Your task to perform on an android device: Open internet settings Image 0: 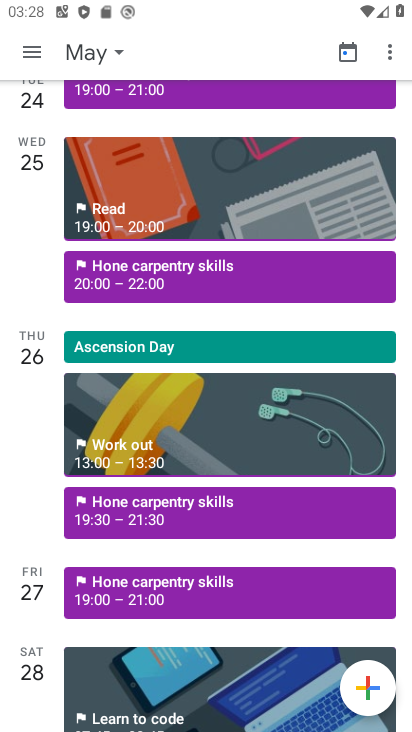
Step 0: press home button
Your task to perform on an android device: Open internet settings Image 1: 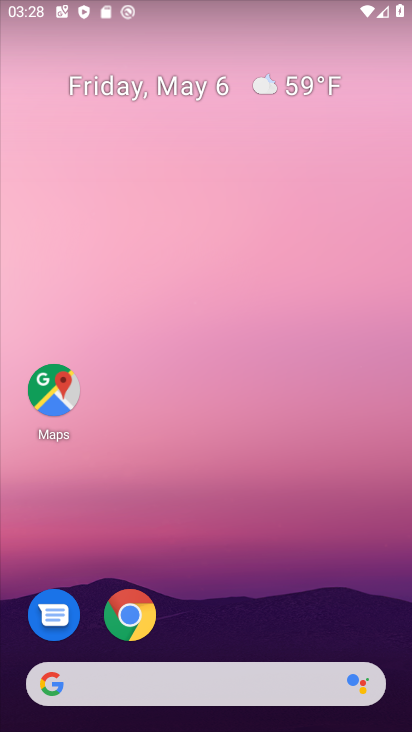
Step 1: drag from (372, 652) to (251, 14)
Your task to perform on an android device: Open internet settings Image 2: 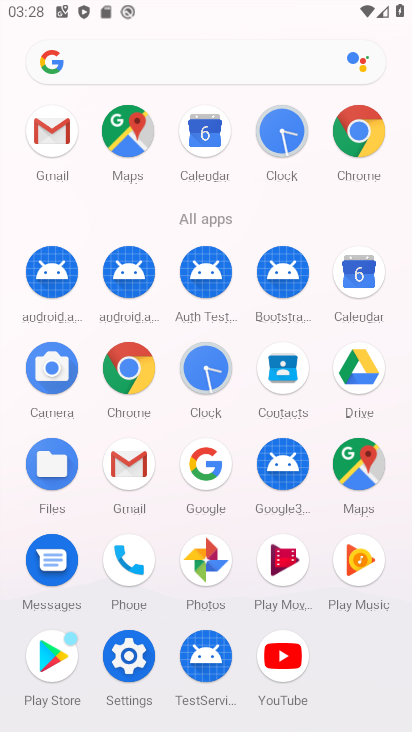
Step 2: click (126, 657)
Your task to perform on an android device: Open internet settings Image 3: 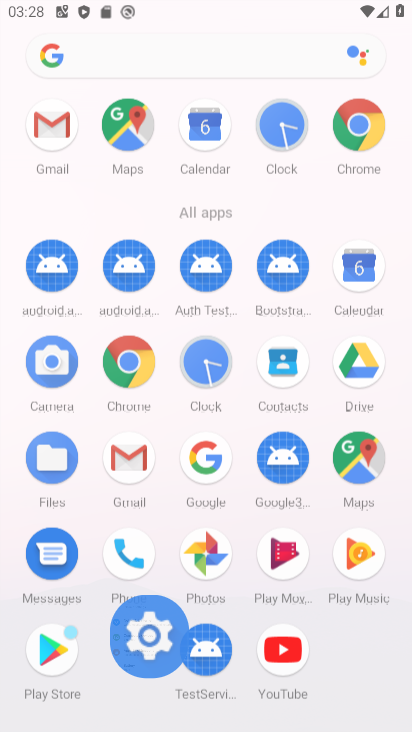
Step 3: click (131, 655)
Your task to perform on an android device: Open internet settings Image 4: 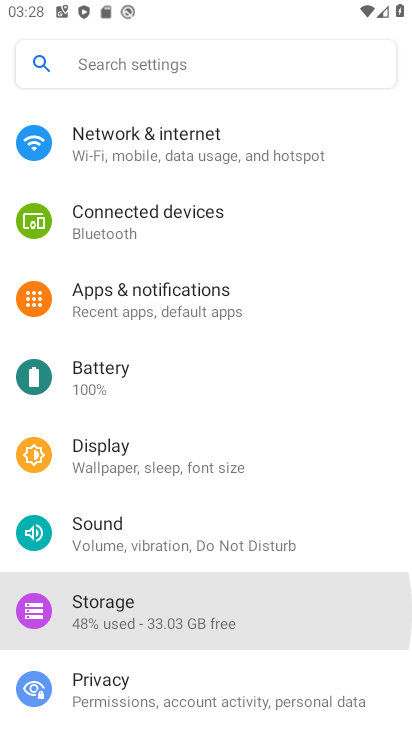
Step 4: click (139, 647)
Your task to perform on an android device: Open internet settings Image 5: 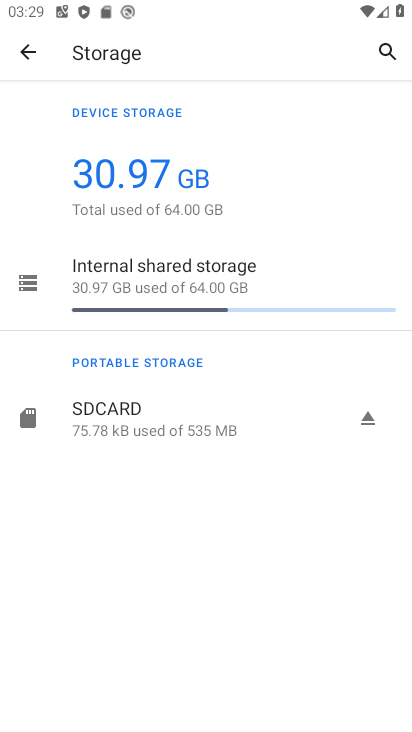
Step 5: click (20, 42)
Your task to perform on an android device: Open internet settings Image 6: 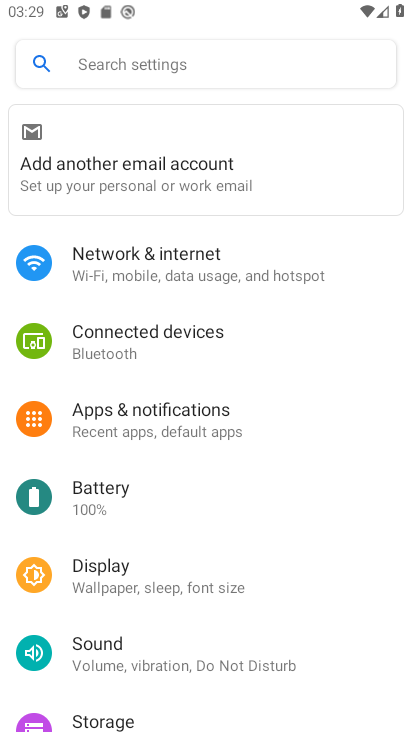
Step 6: click (143, 267)
Your task to perform on an android device: Open internet settings Image 7: 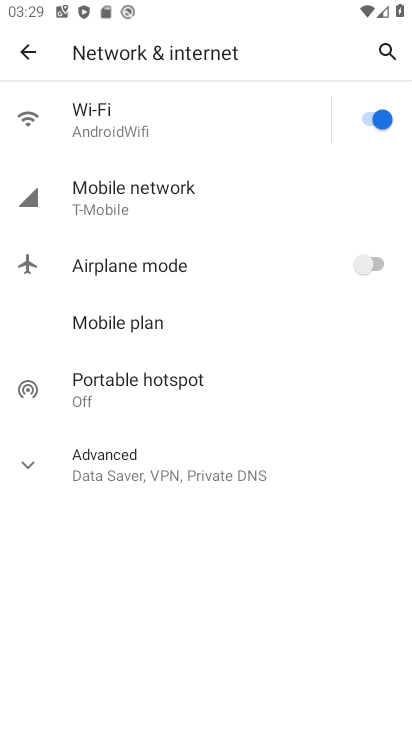
Step 7: task complete